Your task to perform on an android device: Clear the shopping cart on walmart.com. Add "energizer triple a" to the cart on walmart.com, then select checkout. Image 0: 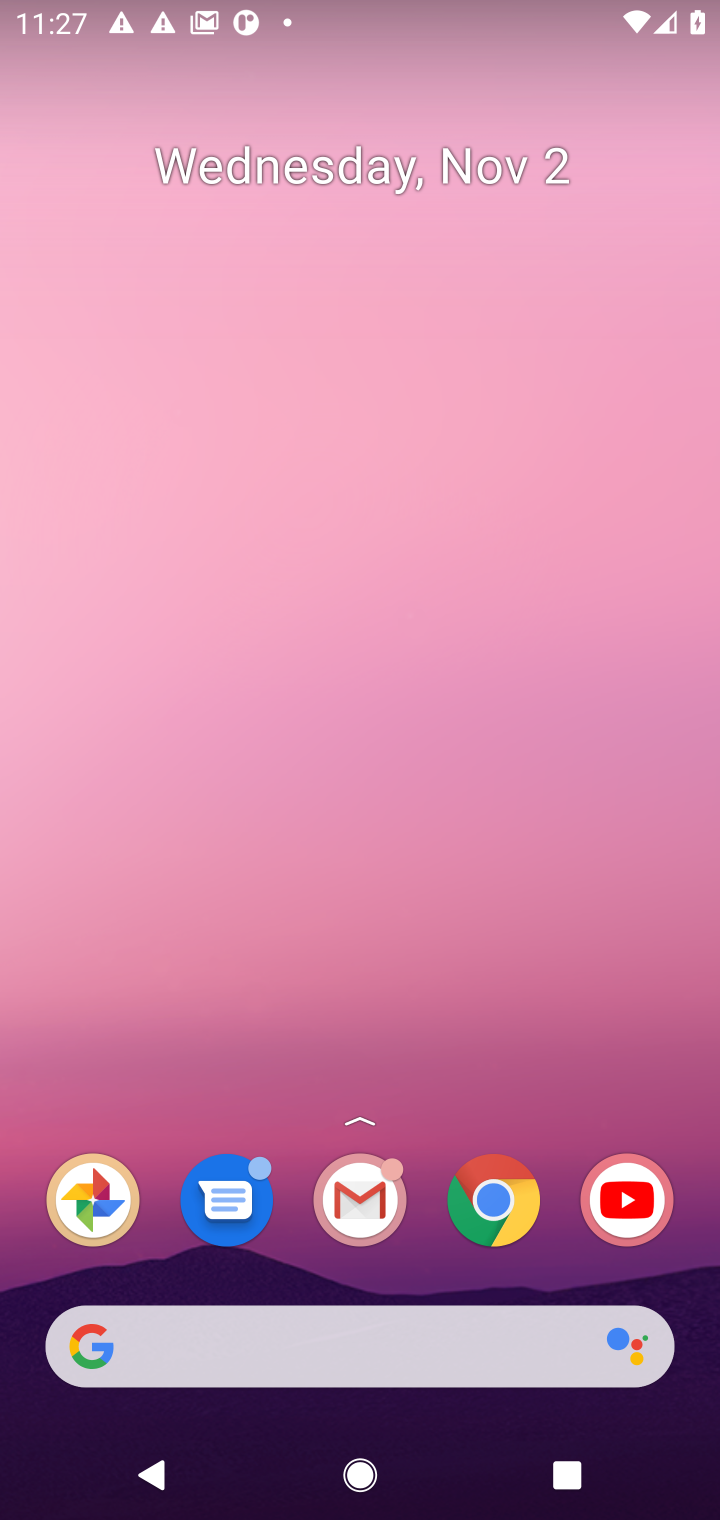
Step 0: click (497, 1197)
Your task to perform on an android device: Clear the shopping cart on walmart.com. Add "energizer triple a" to the cart on walmart.com, then select checkout. Image 1: 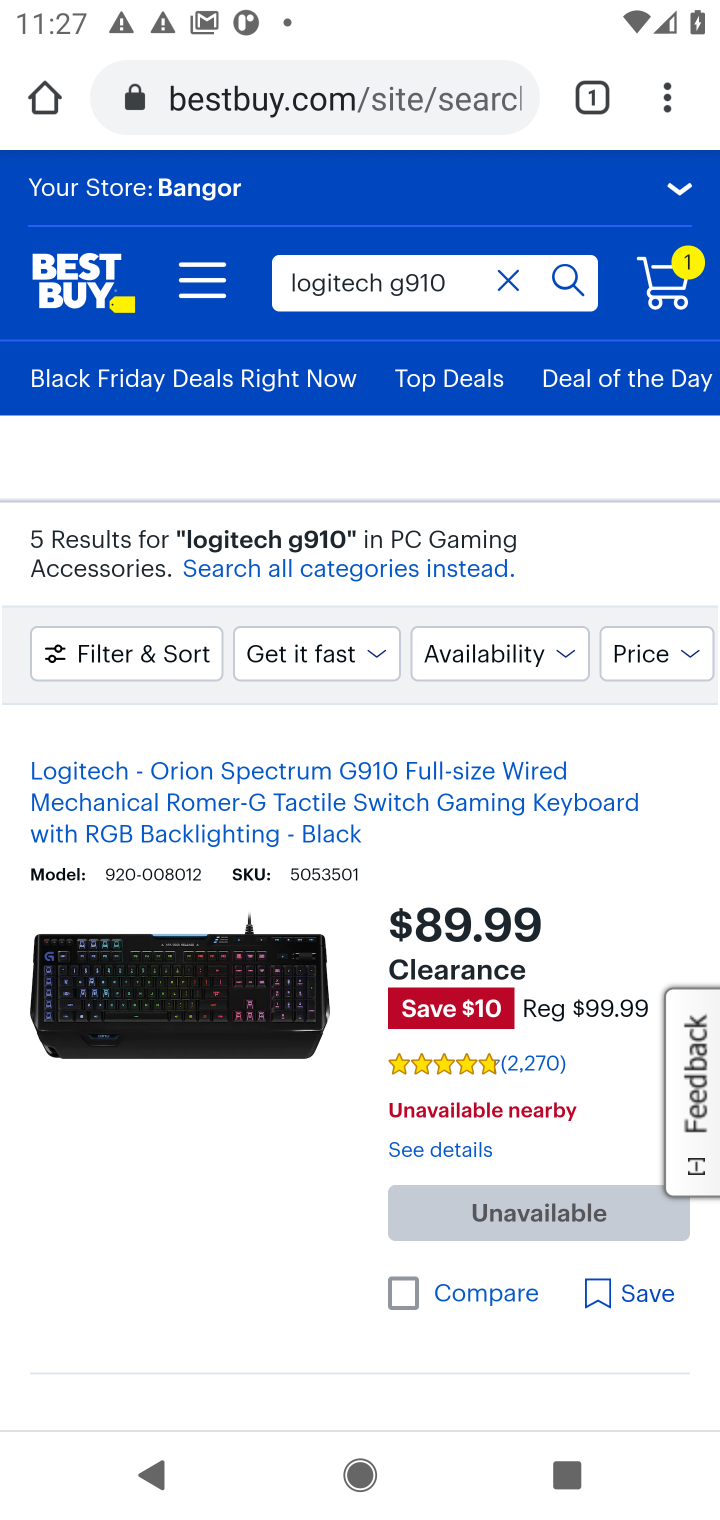
Step 1: click (263, 86)
Your task to perform on an android device: Clear the shopping cart on walmart.com. Add "energizer triple a" to the cart on walmart.com, then select checkout. Image 2: 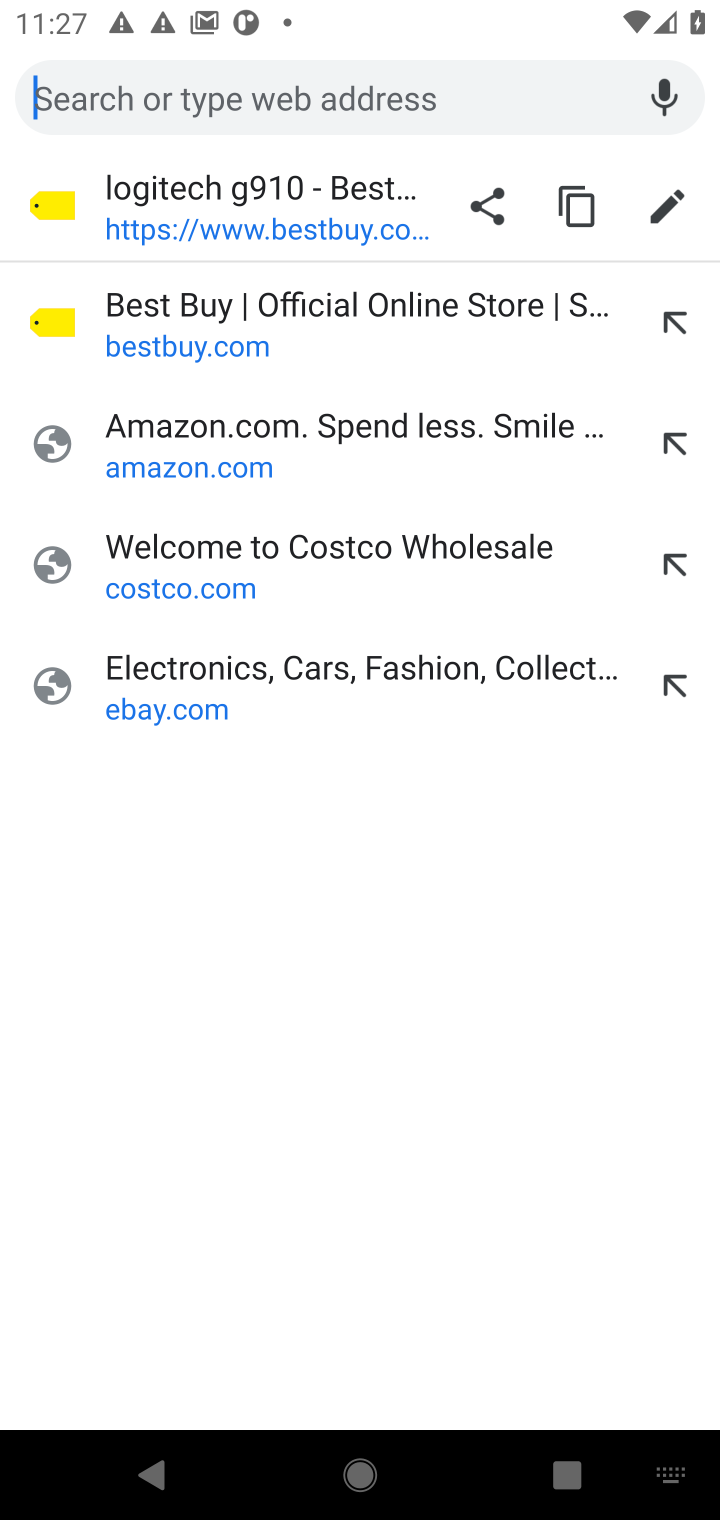
Step 2: press enter
Your task to perform on an android device: Clear the shopping cart on walmart.com. Add "energizer triple a" to the cart on walmart.com, then select checkout. Image 3: 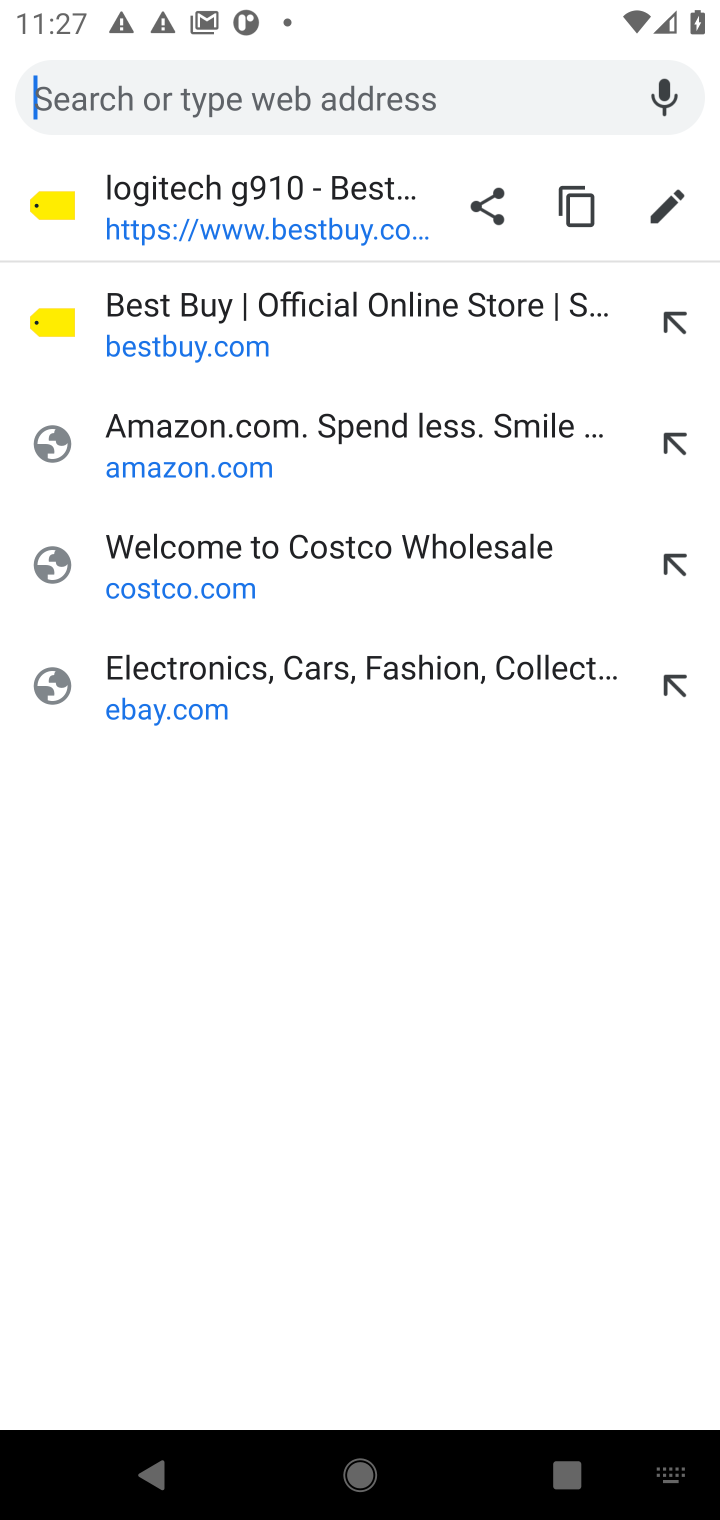
Step 3: type "walmart.com"
Your task to perform on an android device: Clear the shopping cart on walmart.com. Add "energizer triple a" to the cart on walmart.com, then select checkout. Image 4: 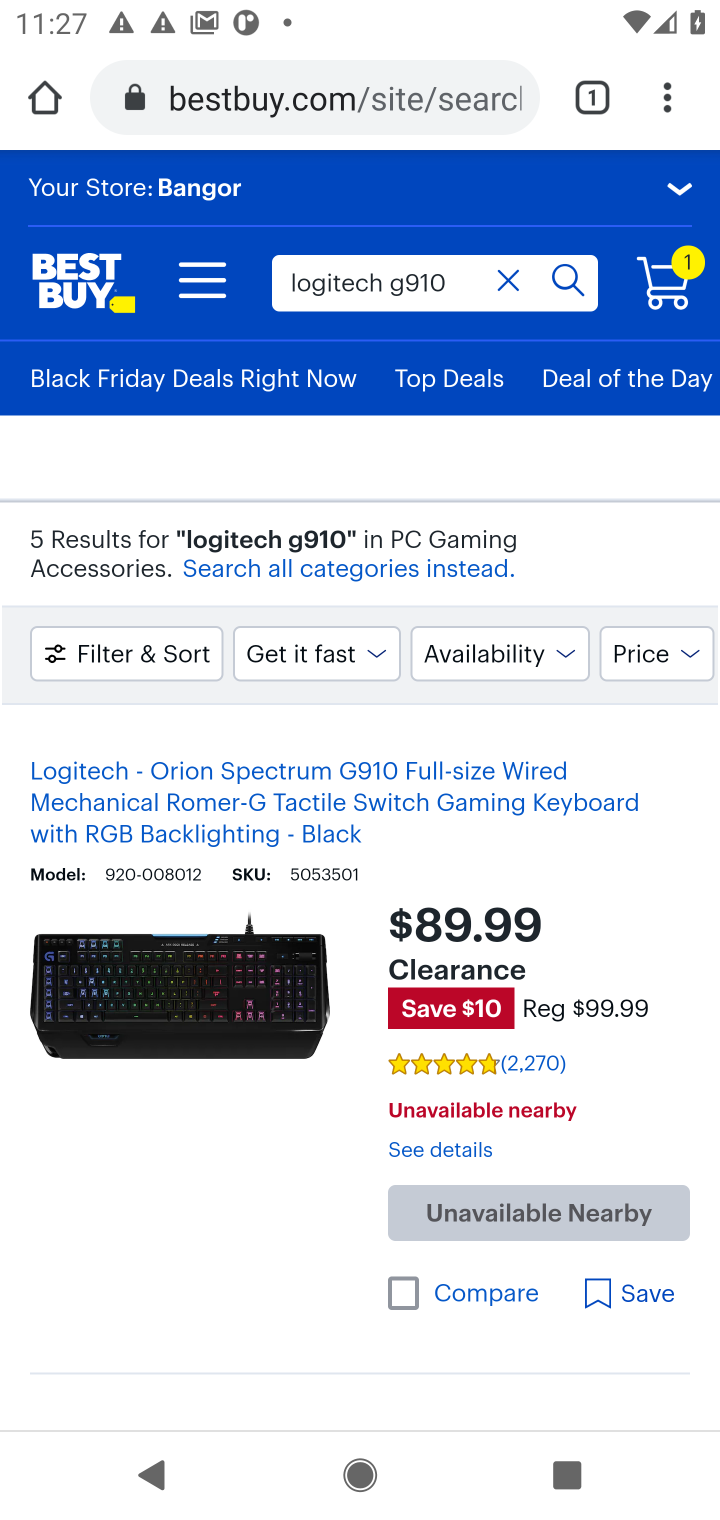
Step 4: click (52, 100)
Your task to perform on an android device: Clear the shopping cart on walmart.com. Add "energizer triple a" to the cart on walmart.com, then select checkout. Image 5: 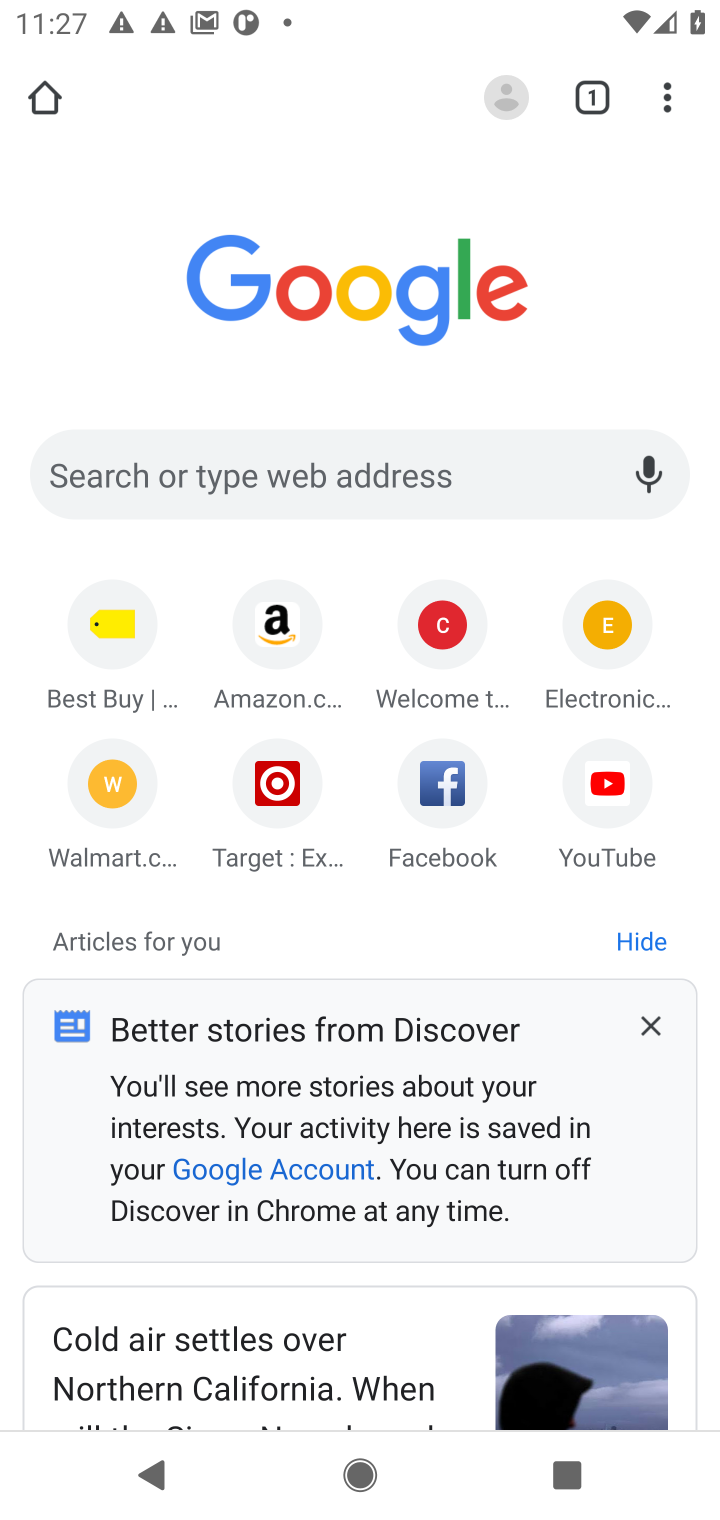
Step 5: click (484, 461)
Your task to perform on an android device: Clear the shopping cart on walmart.com. Add "energizer triple a" to the cart on walmart.com, then select checkout. Image 6: 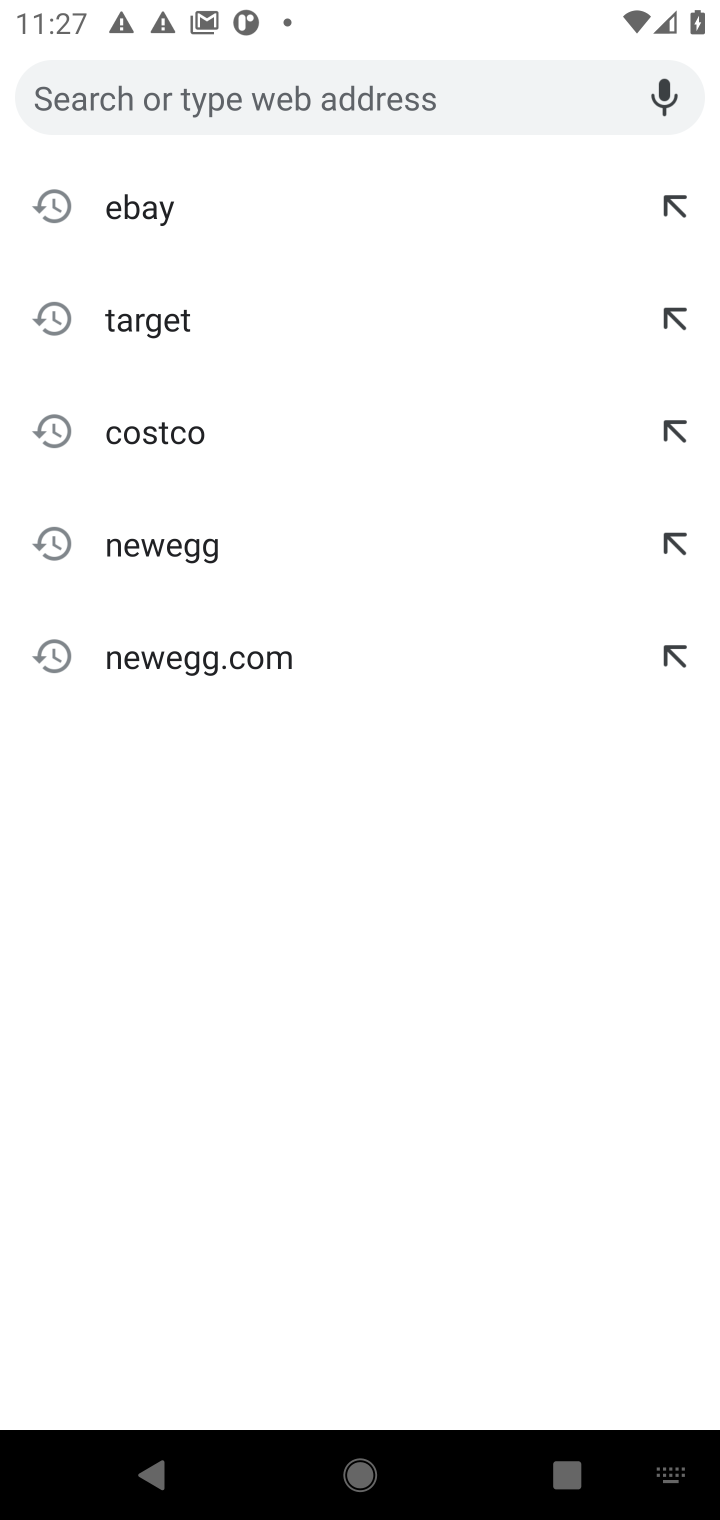
Step 6: type "walmart.com"
Your task to perform on an android device: Clear the shopping cart on walmart.com. Add "energizer triple a" to the cart on walmart.com, then select checkout. Image 7: 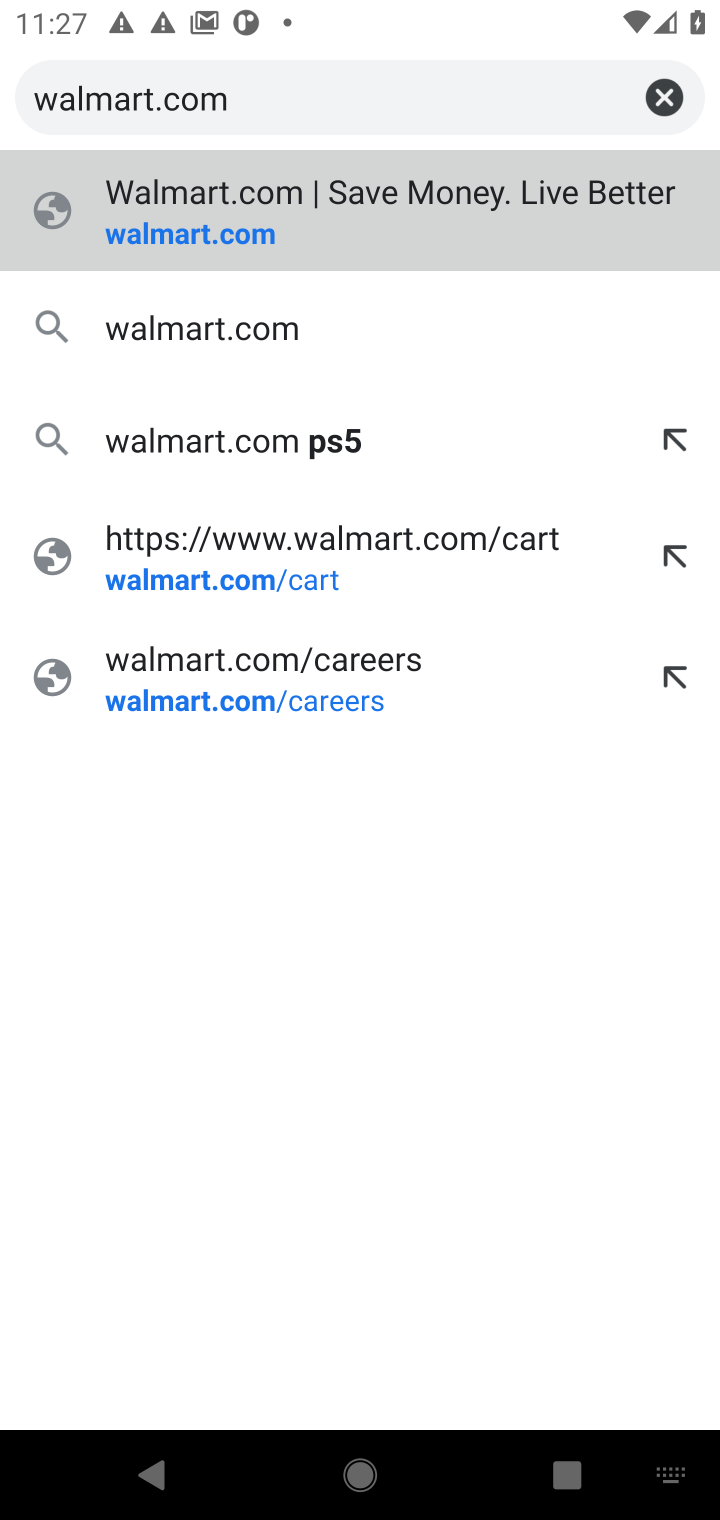
Step 7: press enter
Your task to perform on an android device: Clear the shopping cart on walmart.com. Add "energizer triple a" to the cart on walmart.com, then select checkout. Image 8: 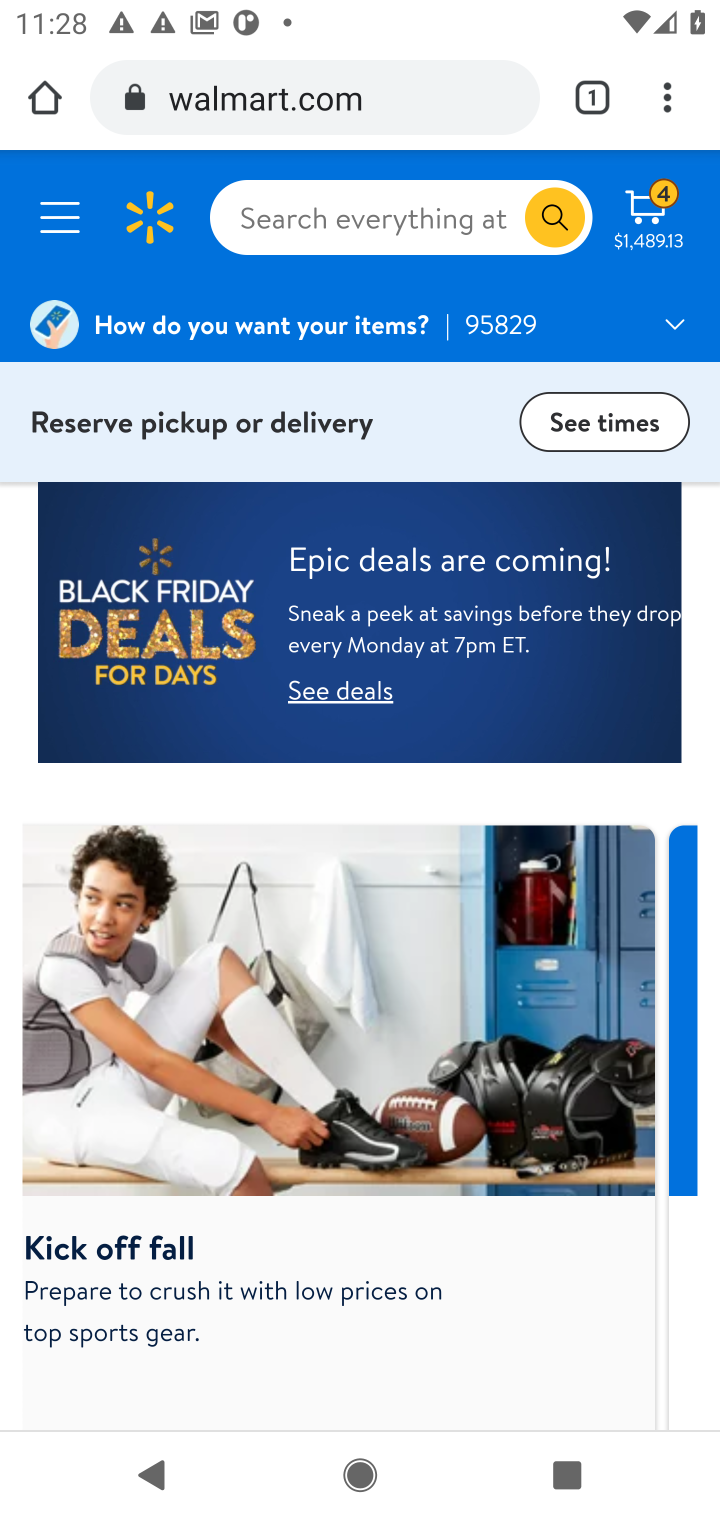
Step 8: click (642, 212)
Your task to perform on an android device: Clear the shopping cart on walmart.com. Add "energizer triple a" to the cart on walmart.com, then select checkout. Image 9: 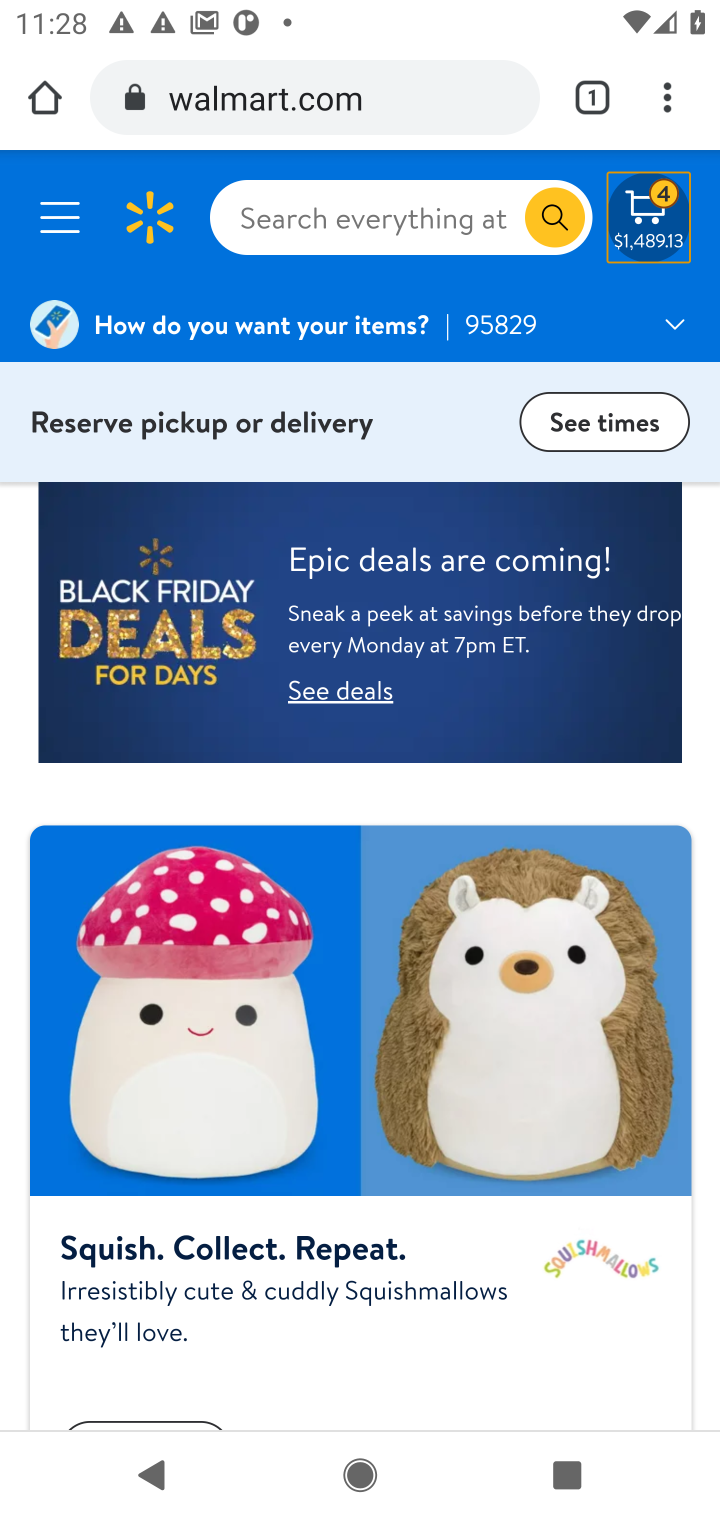
Step 9: click (648, 229)
Your task to perform on an android device: Clear the shopping cart on walmart.com. Add "energizer triple a" to the cart on walmart.com, then select checkout. Image 10: 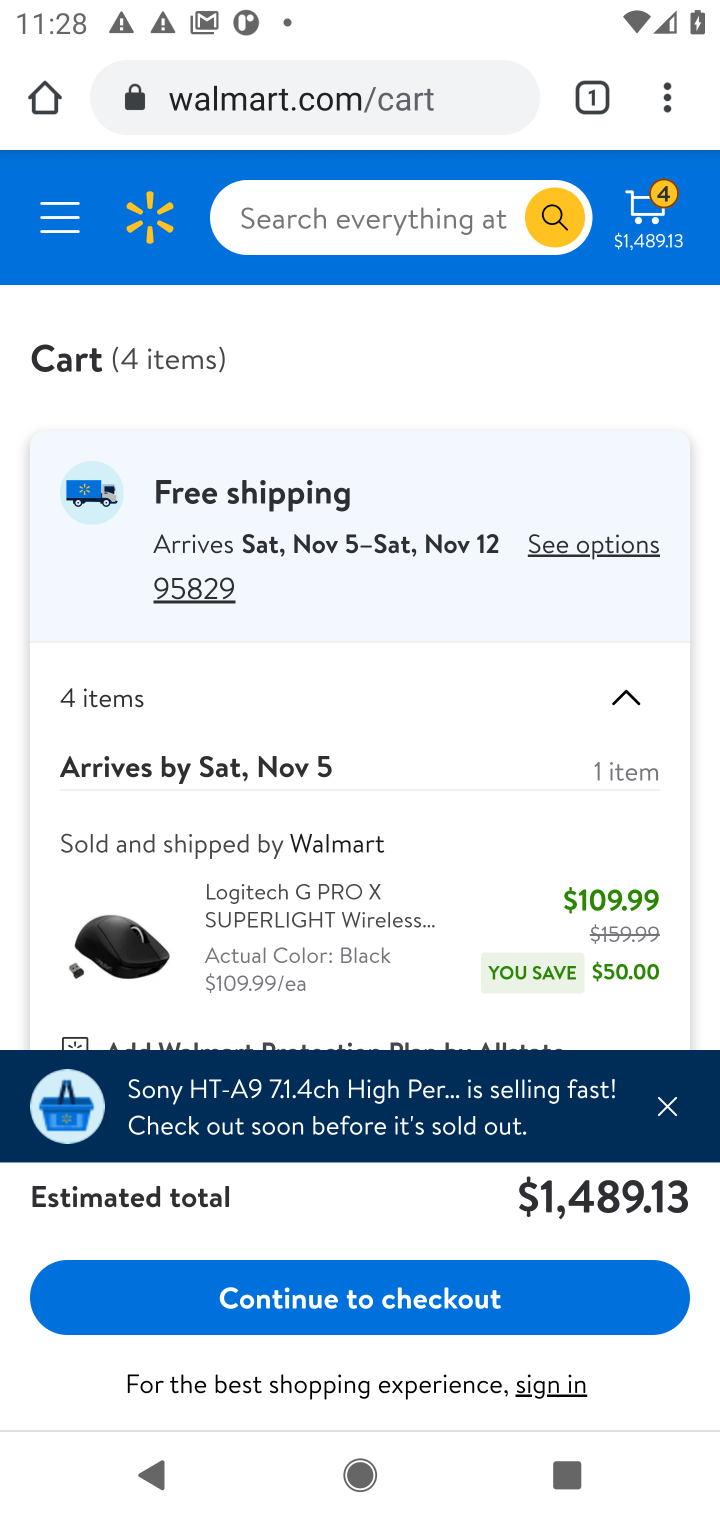
Step 10: drag from (383, 868) to (415, 406)
Your task to perform on an android device: Clear the shopping cart on walmart.com. Add "energizer triple a" to the cart on walmart.com, then select checkout. Image 11: 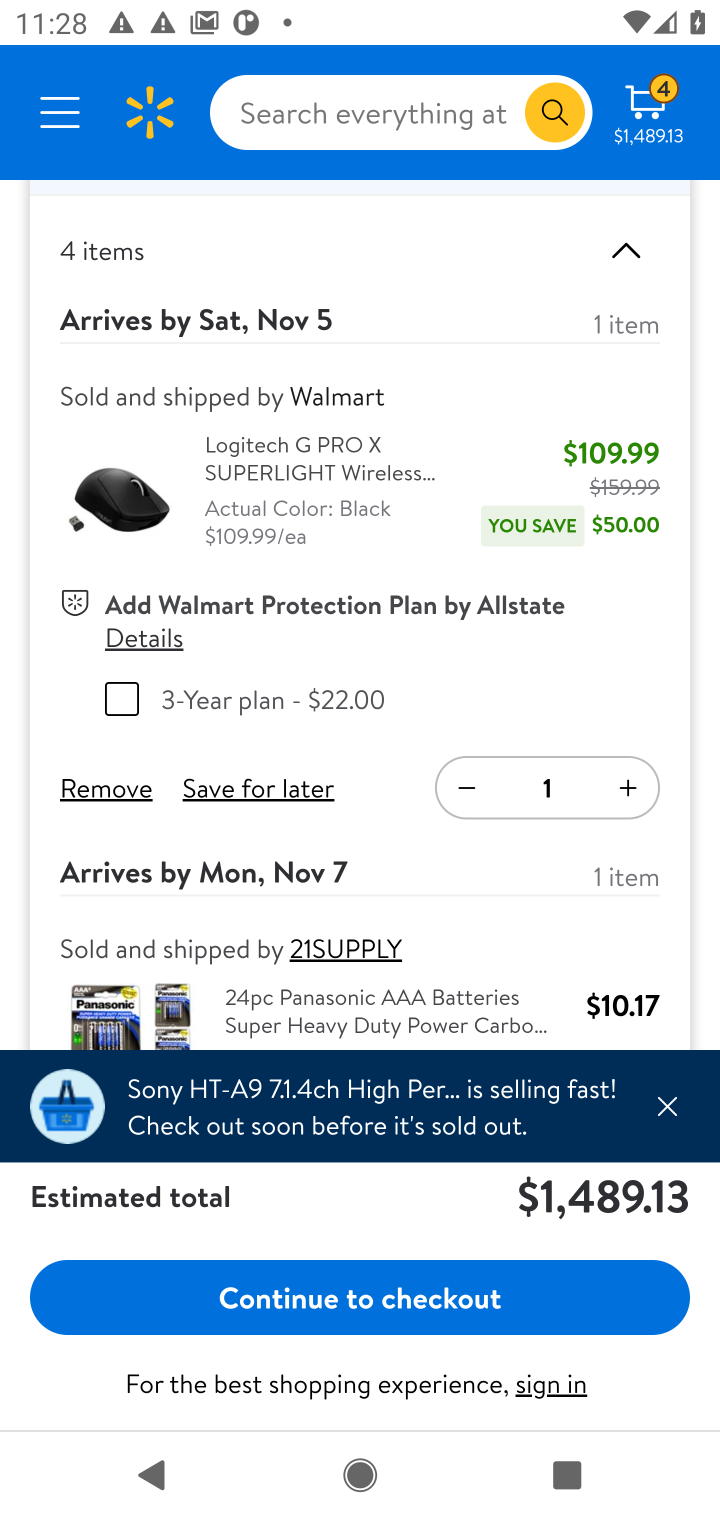
Step 11: click (125, 787)
Your task to perform on an android device: Clear the shopping cart on walmart.com. Add "energizer triple a" to the cart on walmart.com, then select checkout. Image 12: 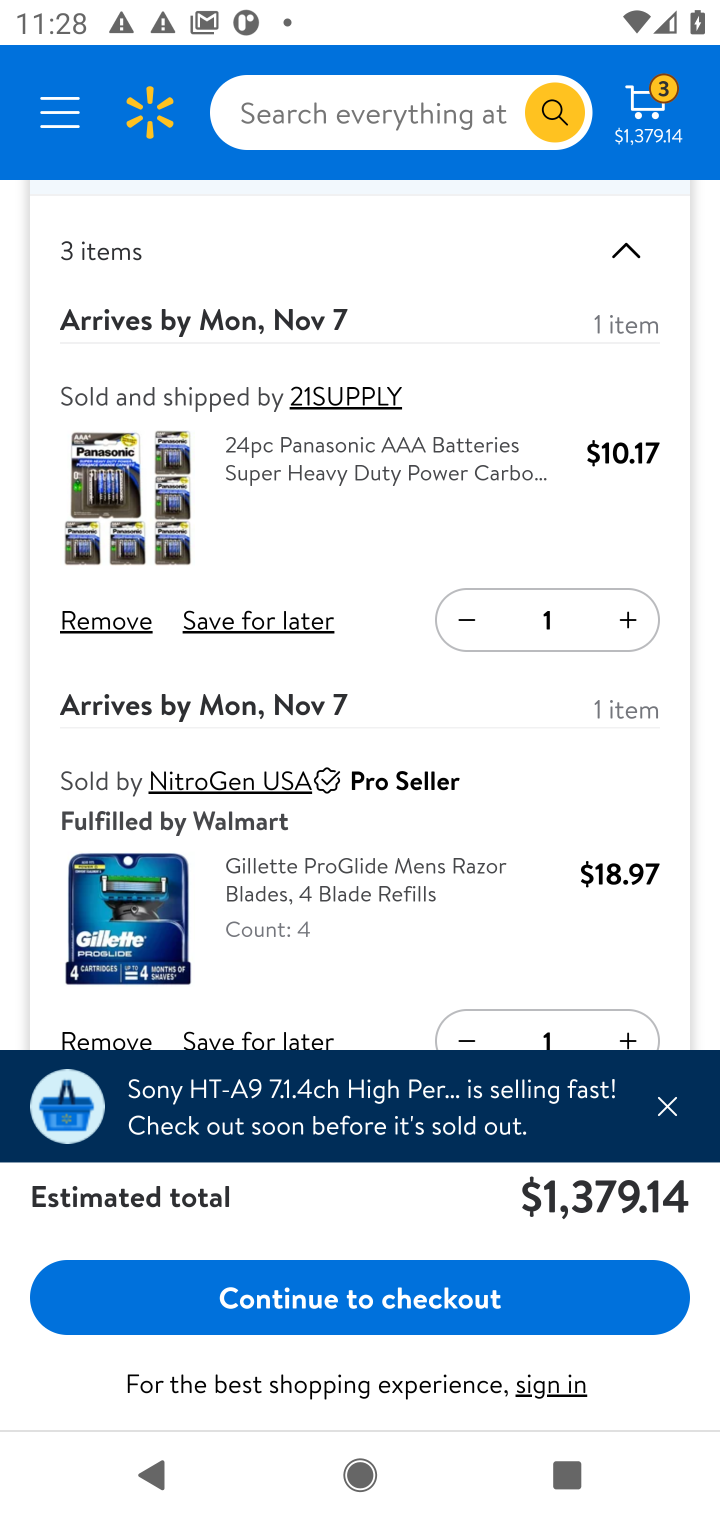
Step 12: drag from (333, 723) to (369, 407)
Your task to perform on an android device: Clear the shopping cart on walmart.com. Add "energizer triple a" to the cart on walmart.com, then select checkout. Image 13: 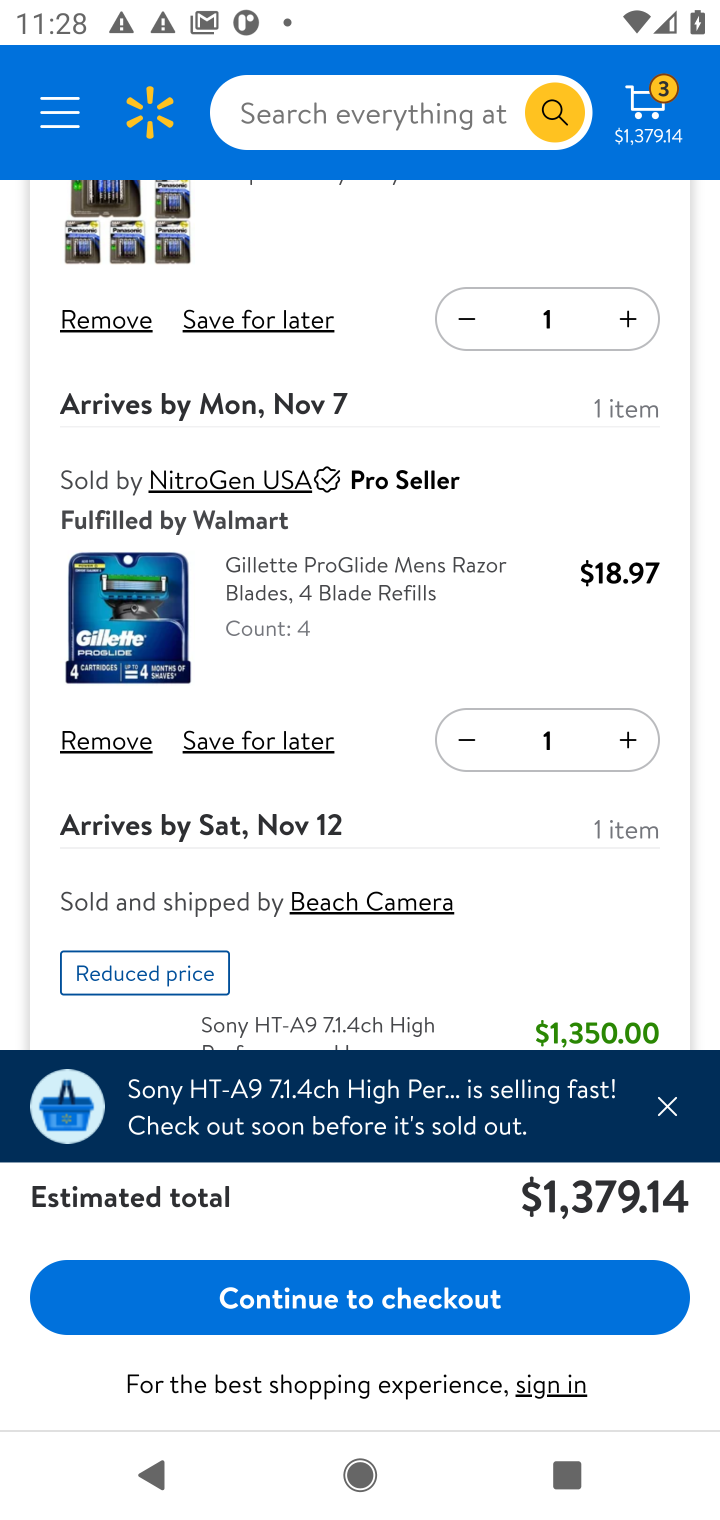
Step 13: click (123, 321)
Your task to perform on an android device: Clear the shopping cart on walmart.com. Add "energizer triple a" to the cart on walmart.com, then select checkout. Image 14: 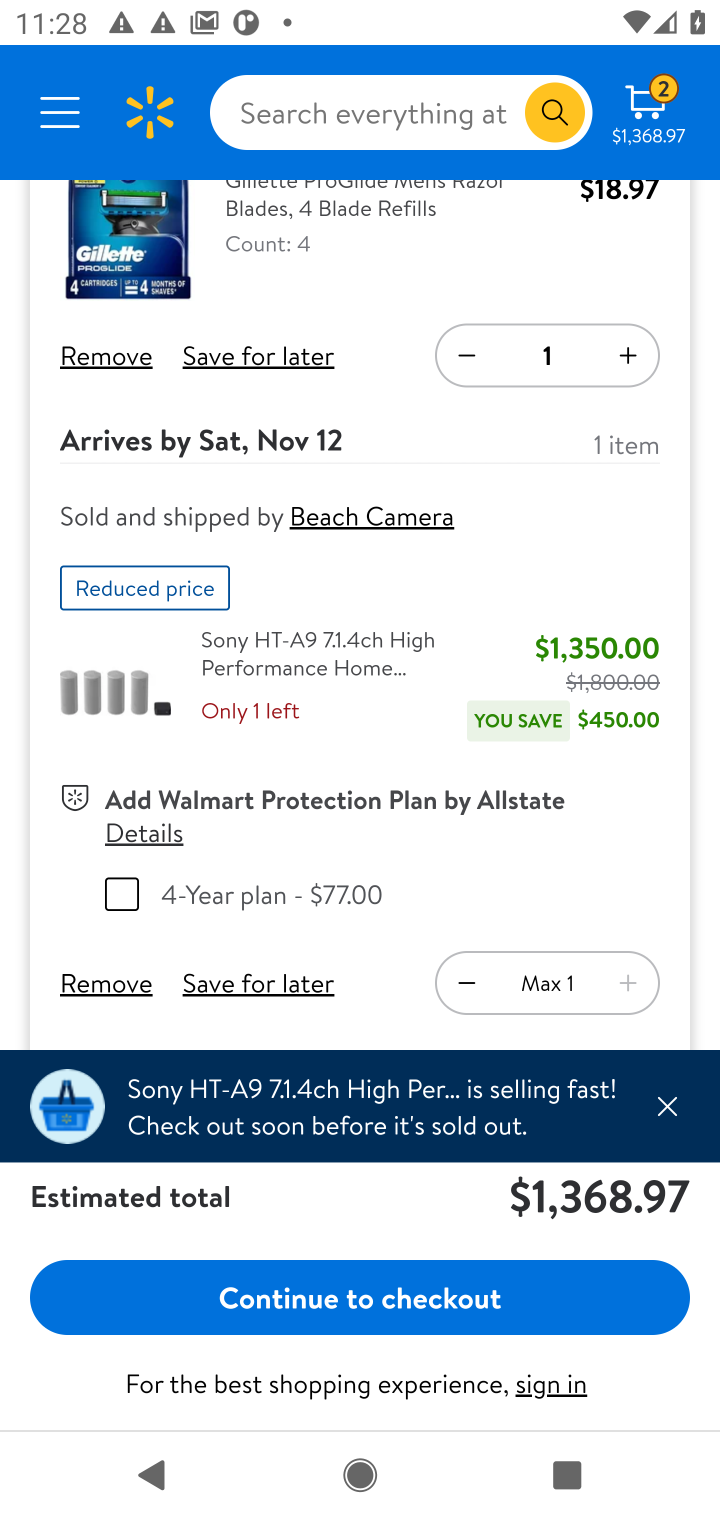
Step 14: click (120, 344)
Your task to perform on an android device: Clear the shopping cart on walmart.com. Add "energizer triple a" to the cart on walmart.com, then select checkout. Image 15: 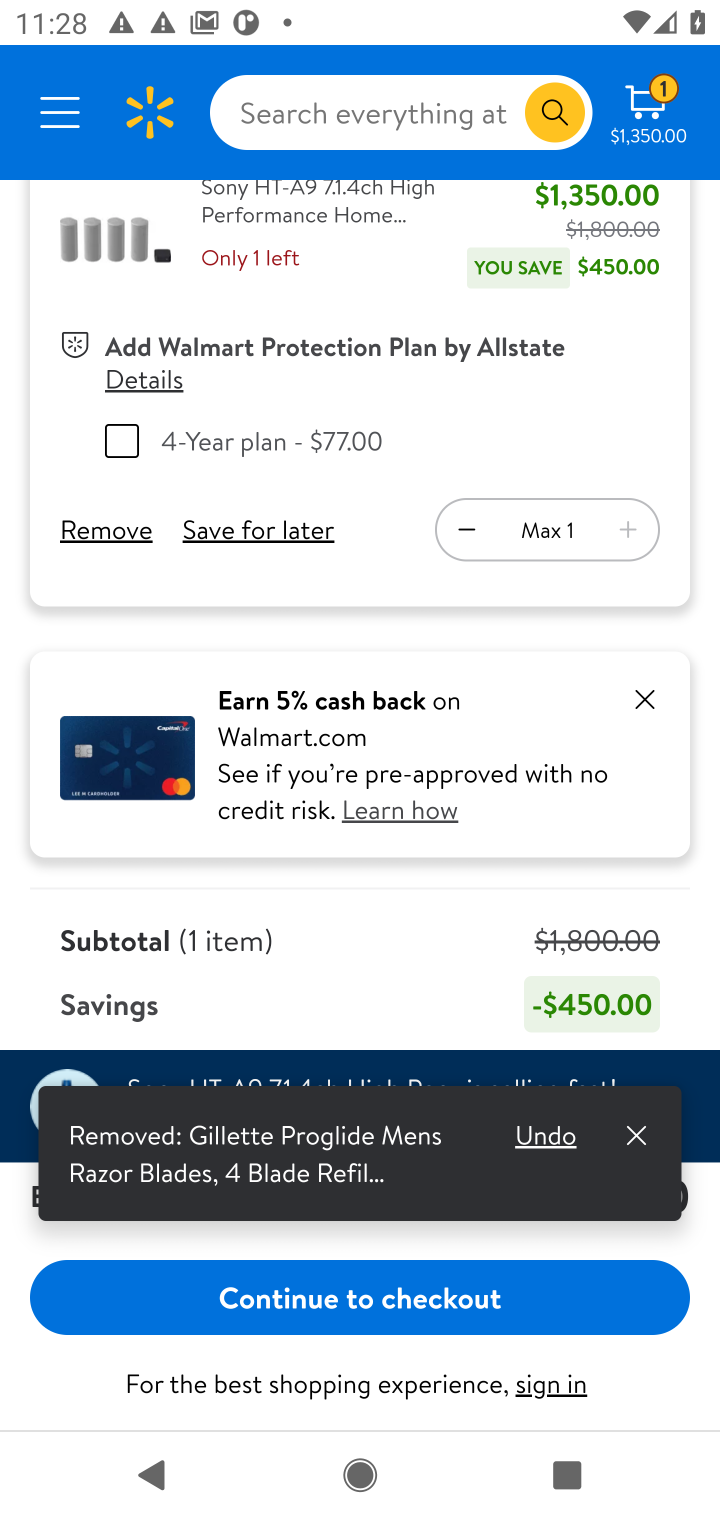
Step 15: click (143, 528)
Your task to perform on an android device: Clear the shopping cart on walmart.com. Add "energizer triple a" to the cart on walmart.com, then select checkout. Image 16: 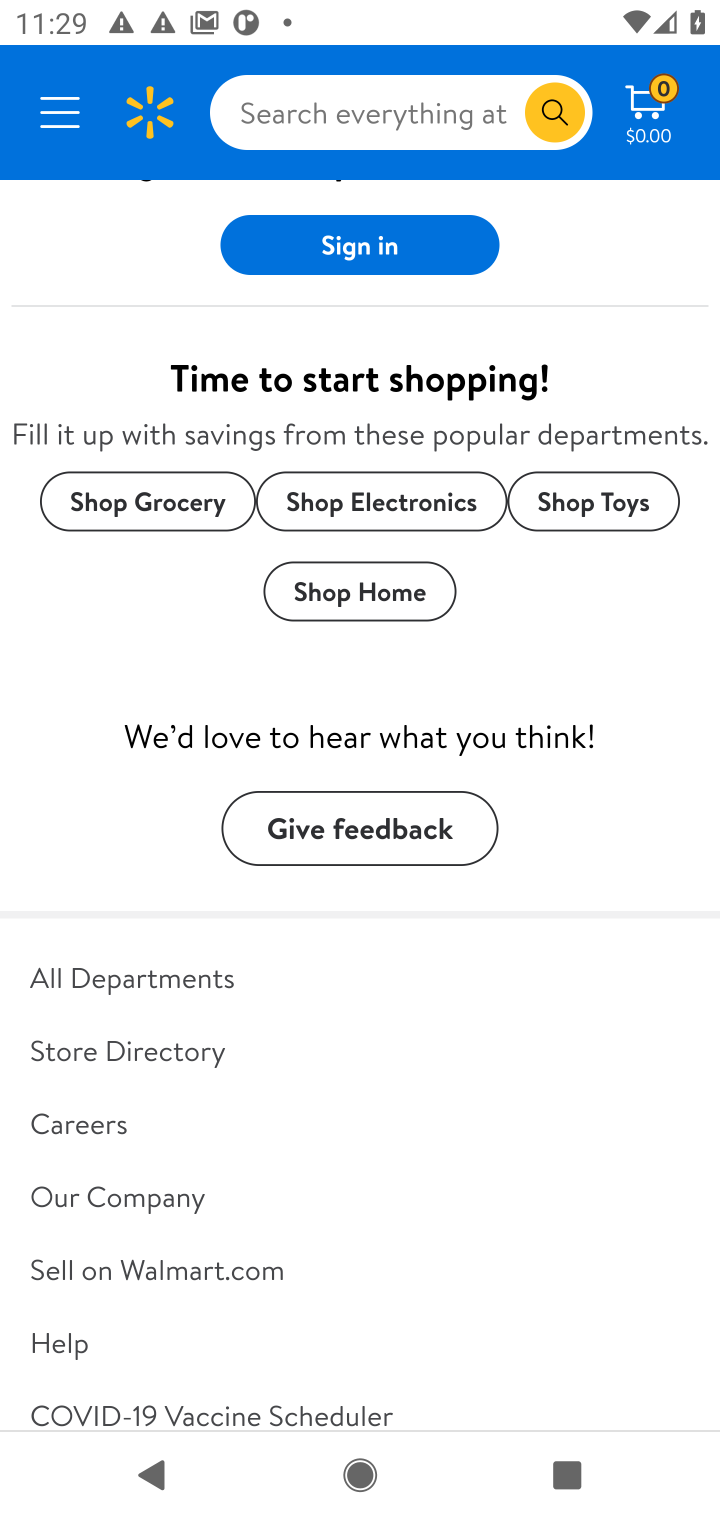
Step 16: click (374, 96)
Your task to perform on an android device: Clear the shopping cart on walmart.com. Add "energizer triple a" to the cart on walmart.com, then select checkout. Image 17: 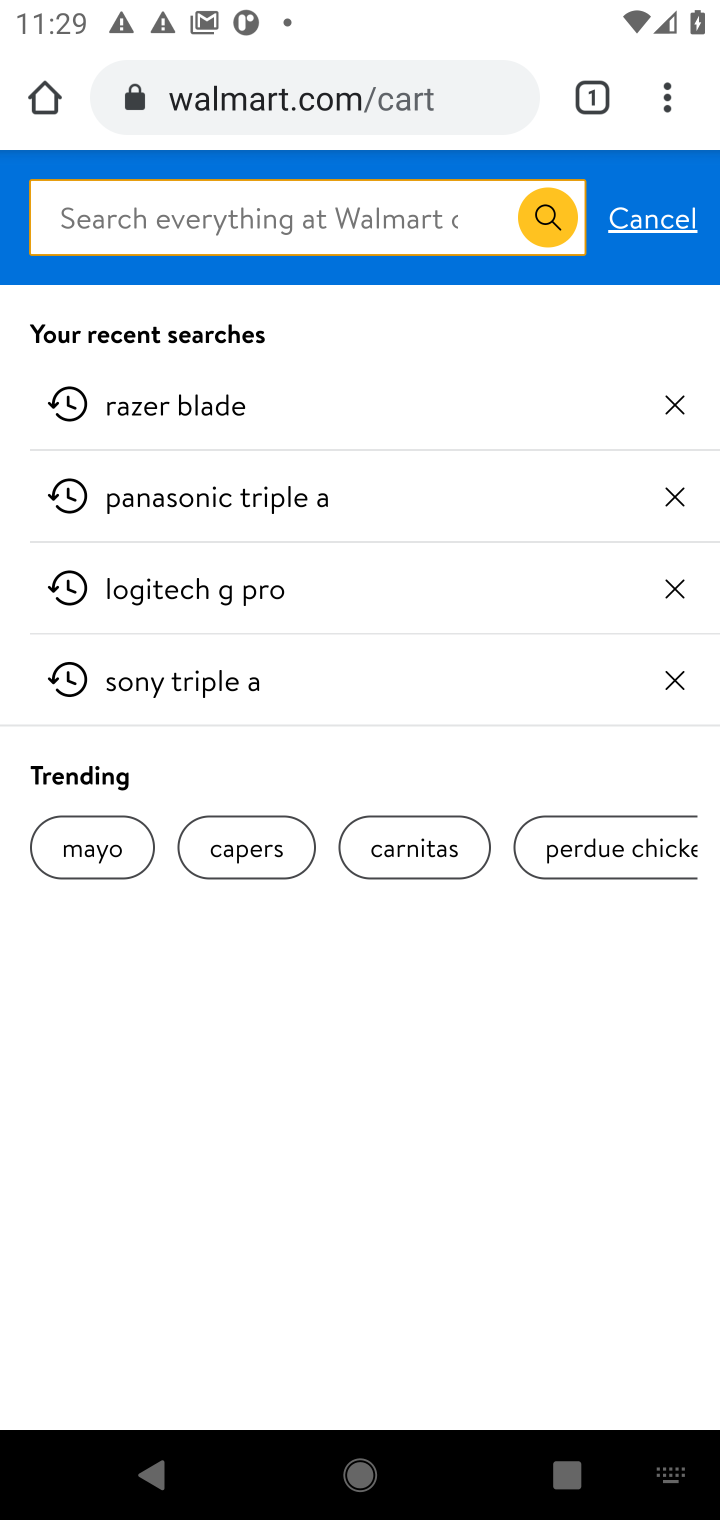
Step 17: press enter
Your task to perform on an android device: Clear the shopping cart on walmart.com. Add "energizer triple a" to the cart on walmart.com, then select checkout. Image 18: 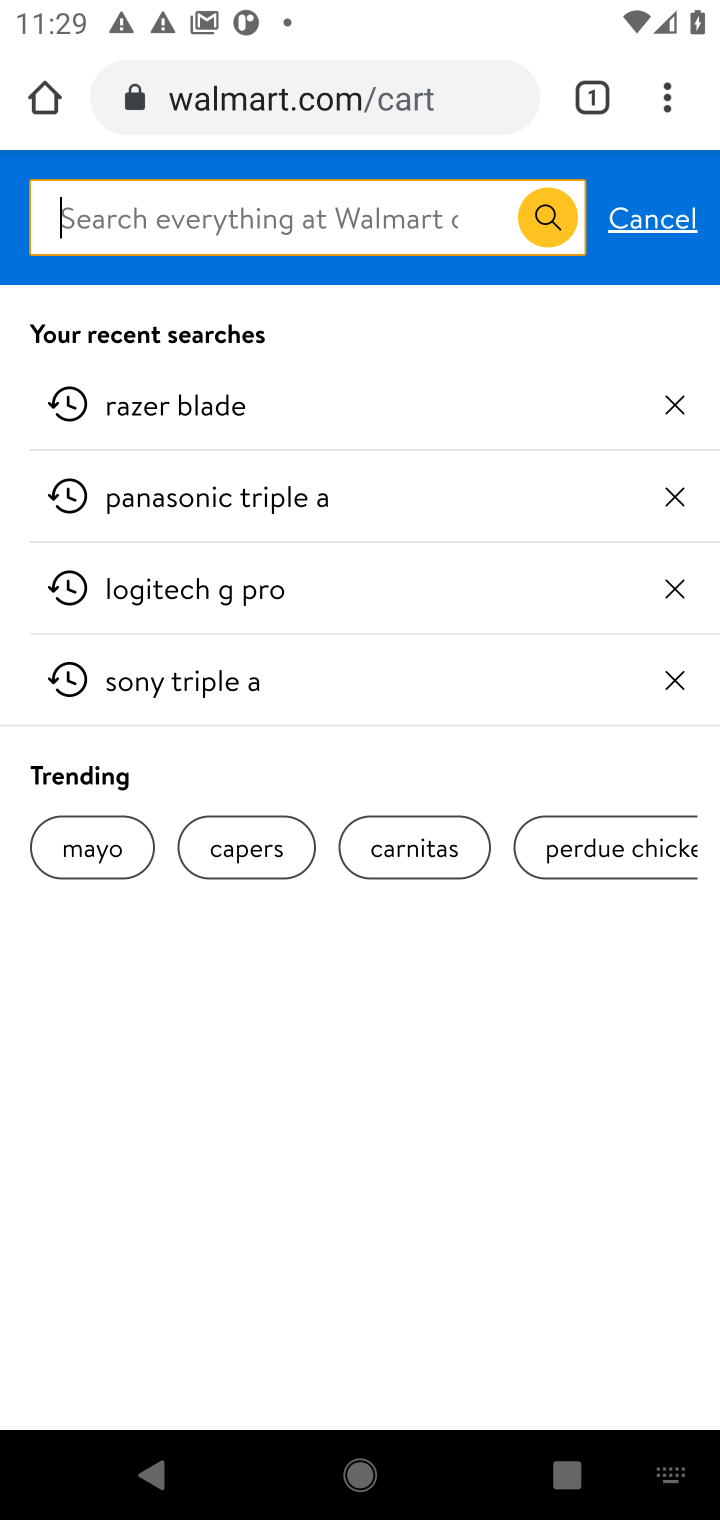
Step 18: type "energizer triple a"
Your task to perform on an android device: Clear the shopping cart on walmart.com. Add "energizer triple a" to the cart on walmart.com, then select checkout. Image 19: 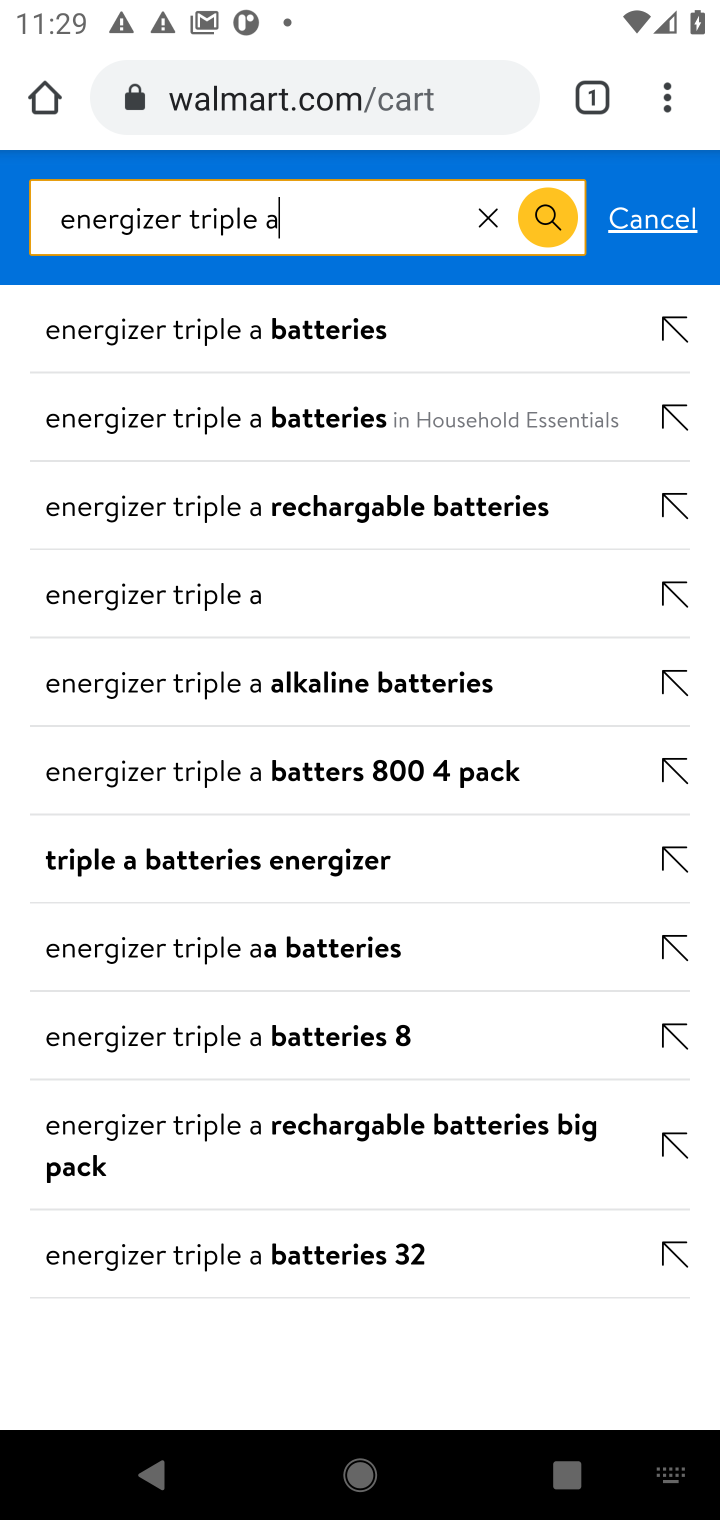
Step 19: click (238, 601)
Your task to perform on an android device: Clear the shopping cart on walmart.com. Add "energizer triple a" to the cart on walmart.com, then select checkout. Image 20: 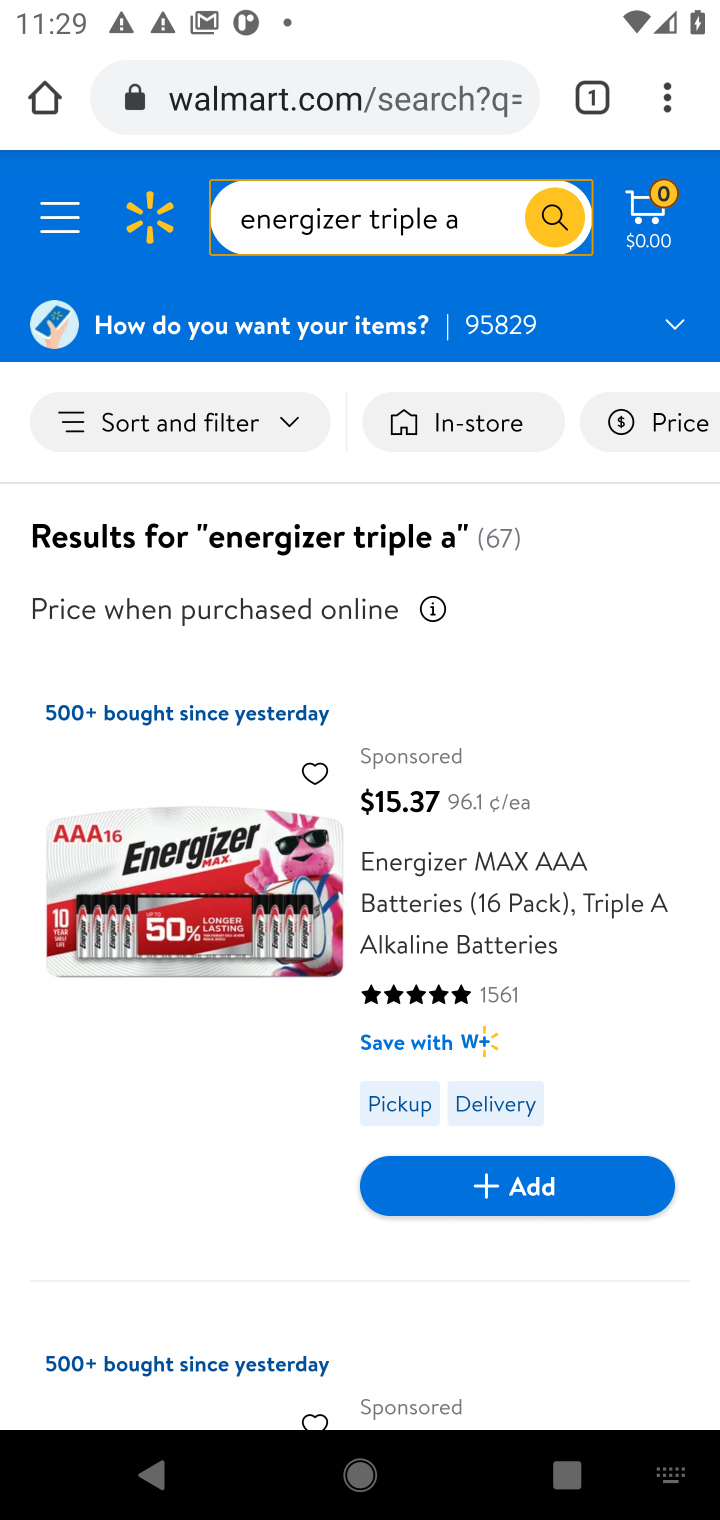
Step 20: click (234, 896)
Your task to perform on an android device: Clear the shopping cart on walmart.com. Add "energizer triple a" to the cart on walmart.com, then select checkout. Image 21: 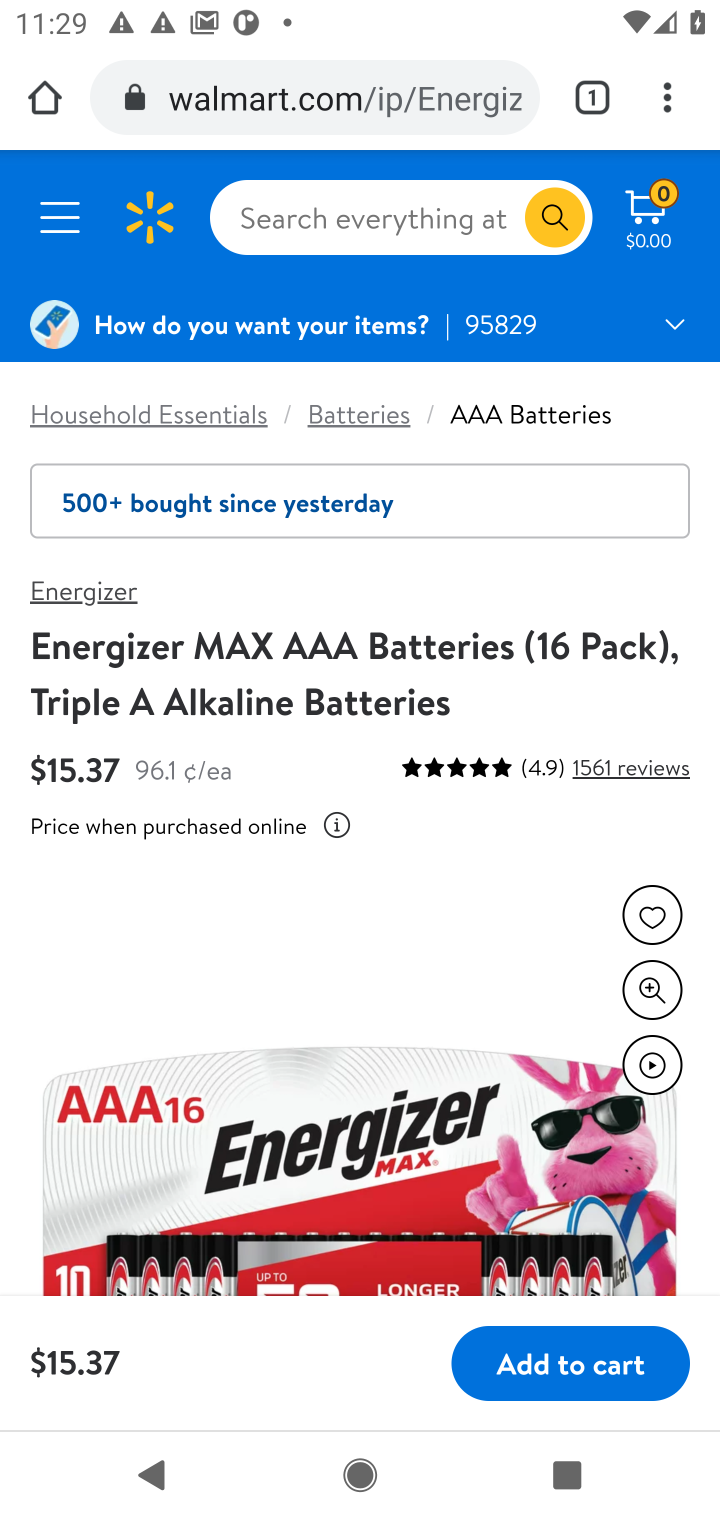
Step 21: click (588, 1361)
Your task to perform on an android device: Clear the shopping cart on walmart.com. Add "energizer triple a" to the cart on walmart.com, then select checkout. Image 22: 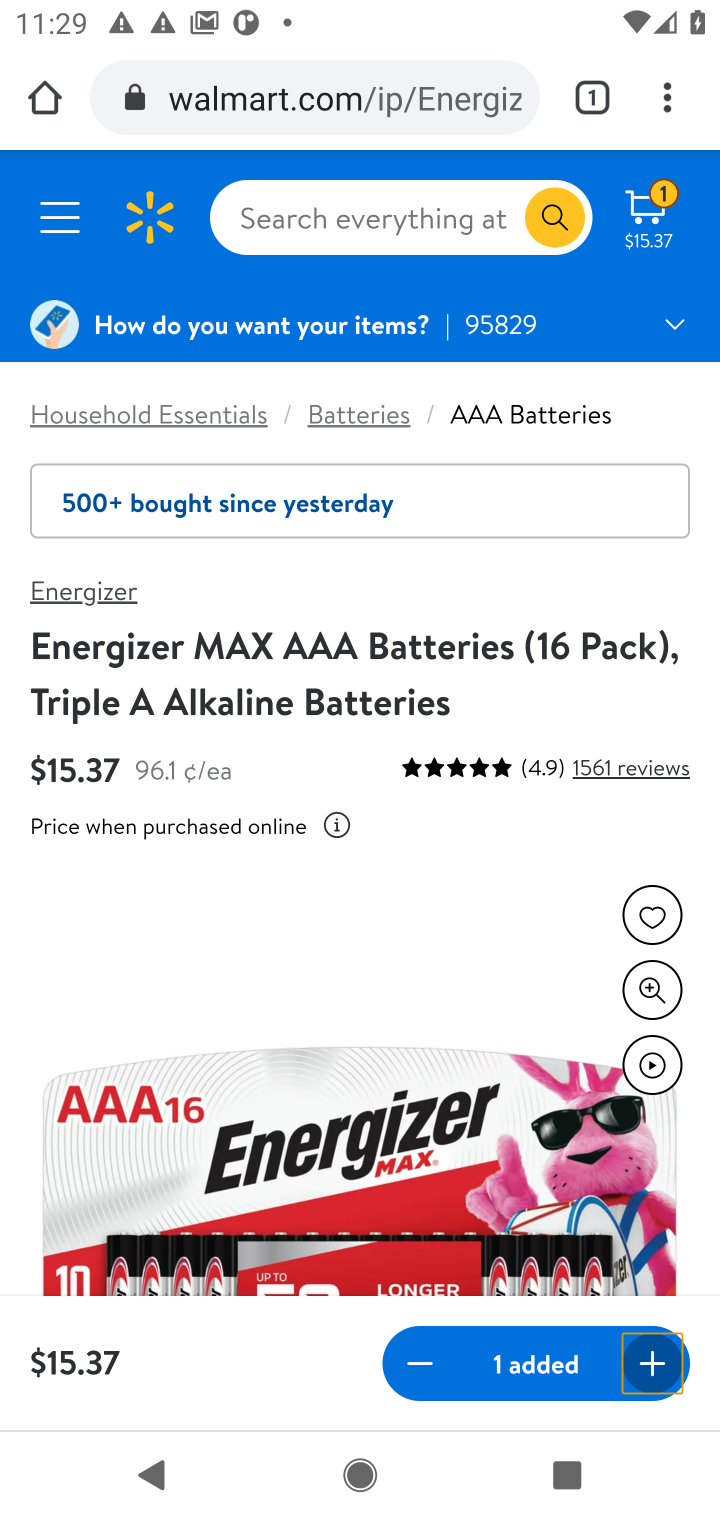
Step 22: click (640, 210)
Your task to perform on an android device: Clear the shopping cart on walmart.com. Add "energizer triple a" to the cart on walmart.com, then select checkout. Image 23: 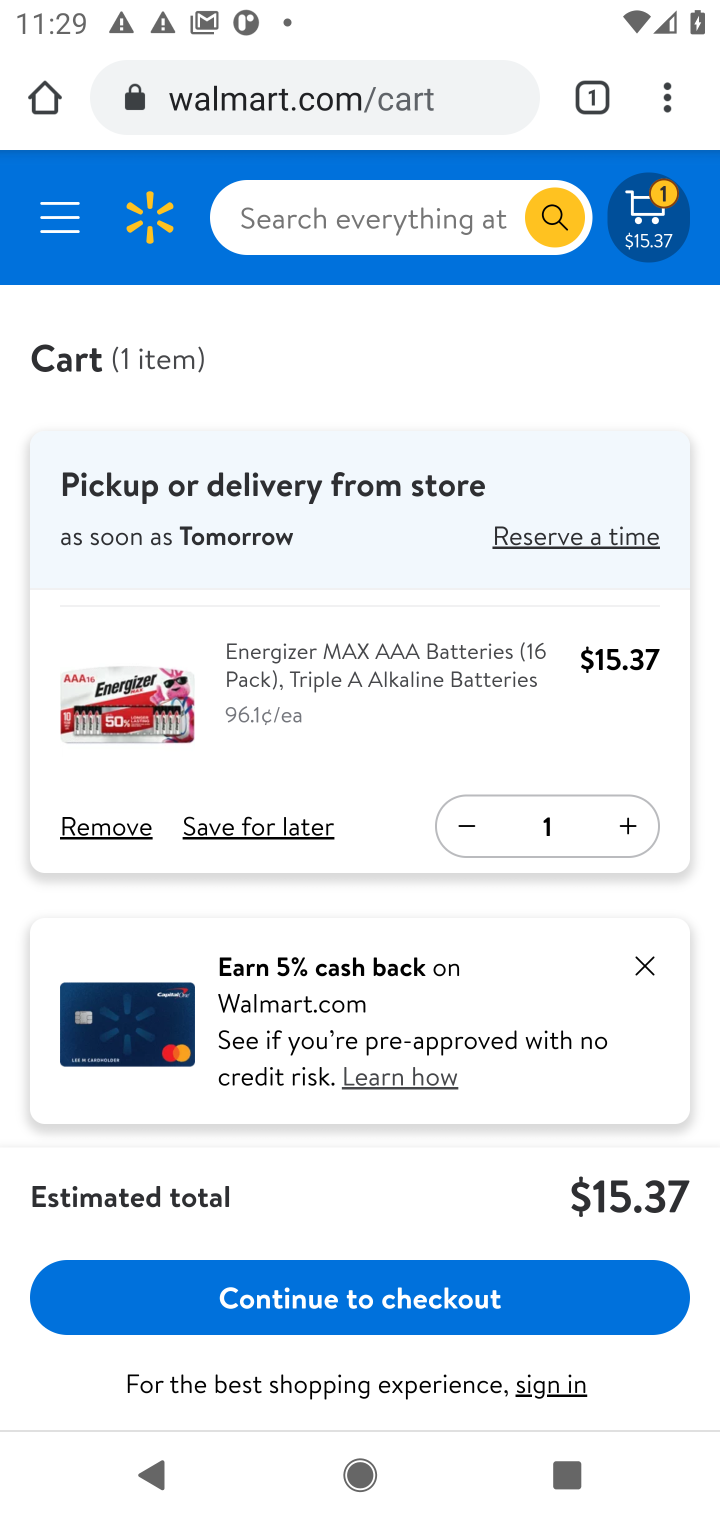
Step 23: click (372, 1301)
Your task to perform on an android device: Clear the shopping cart on walmart.com. Add "energizer triple a" to the cart on walmart.com, then select checkout. Image 24: 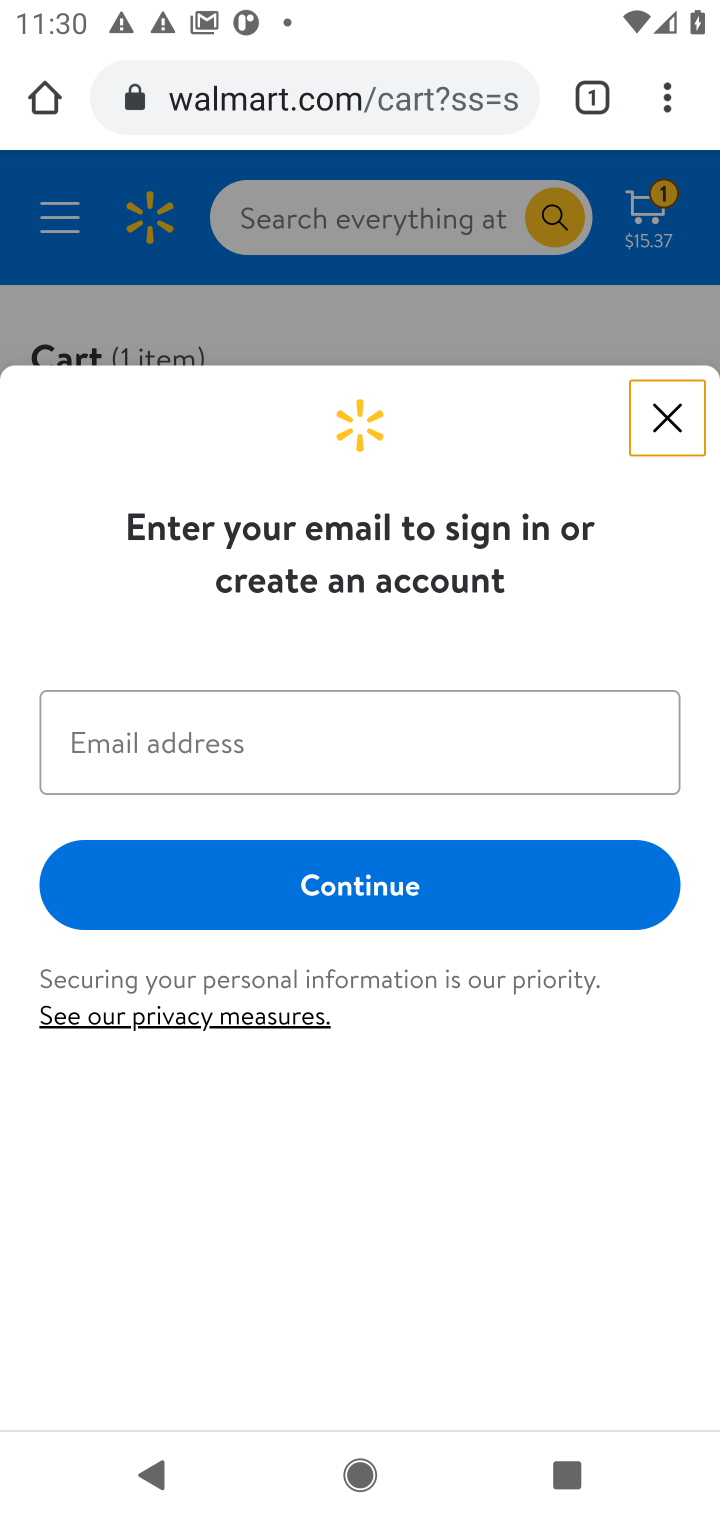
Step 24: task complete